Your task to perform on an android device: empty trash in google photos Image 0: 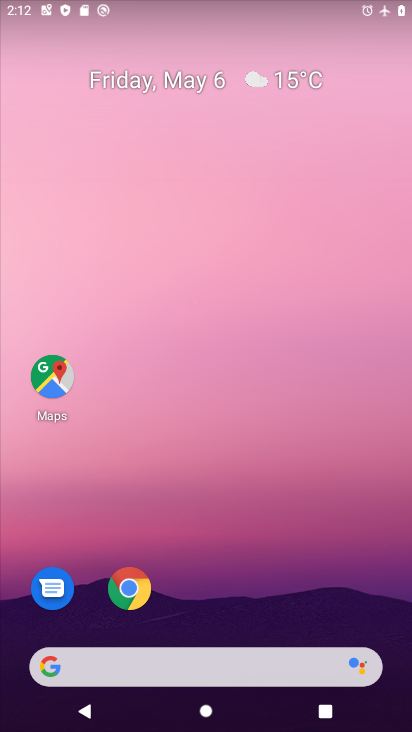
Step 0: drag from (172, 619) to (232, 81)
Your task to perform on an android device: empty trash in google photos Image 1: 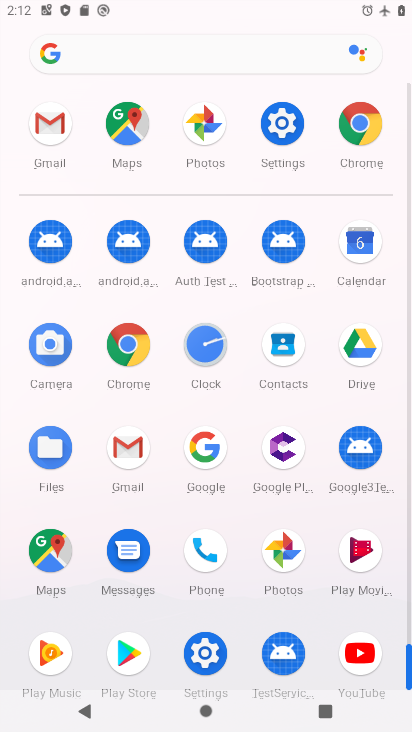
Step 1: click (289, 540)
Your task to perform on an android device: empty trash in google photos Image 2: 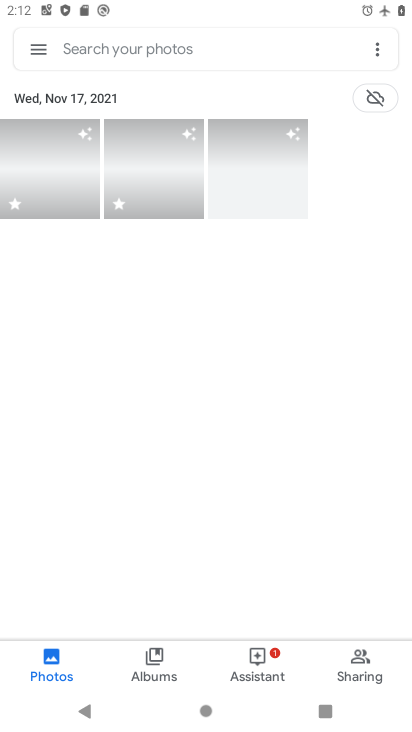
Step 2: click (26, 53)
Your task to perform on an android device: empty trash in google photos Image 3: 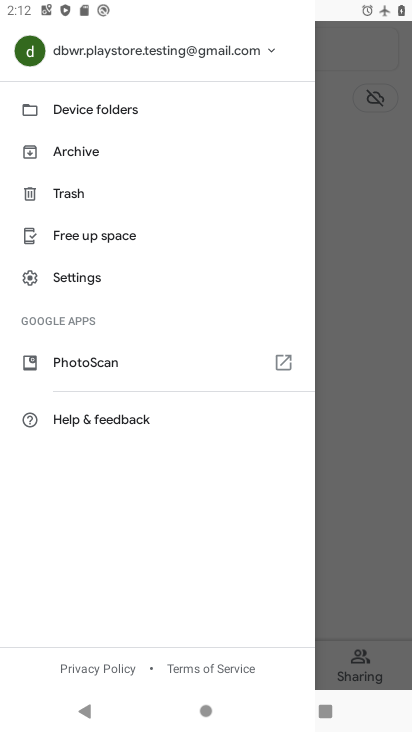
Step 3: click (71, 195)
Your task to perform on an android device: empty trash in google photos Image 4: 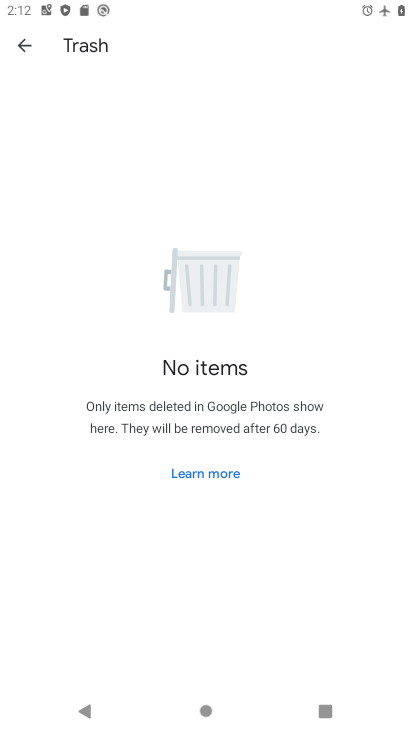
Step 4: task complete